Your task to perform on an android device: Open Google Chrome and click the shortcut for Amazon.com Image 0: 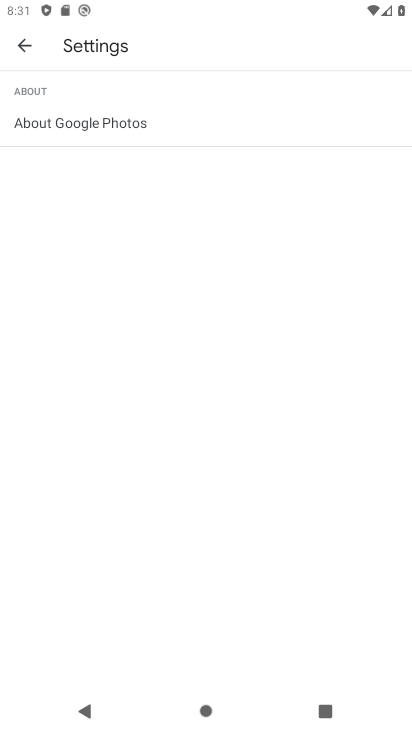
Step 0: press back button
Your task to perform on an android device: Open Google Chrome and click the shortcut for Amazon.com Image 1: 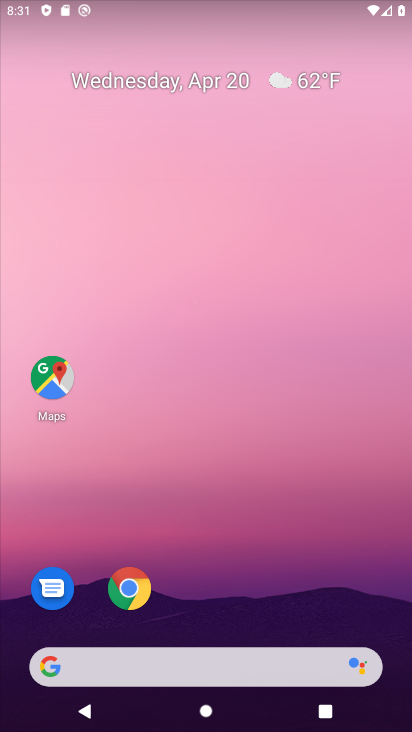
Step 1: click (141, 585)
Your task to perform on an android device: Open Google Chrome and click the shortcut for Amazon.com Image 2: 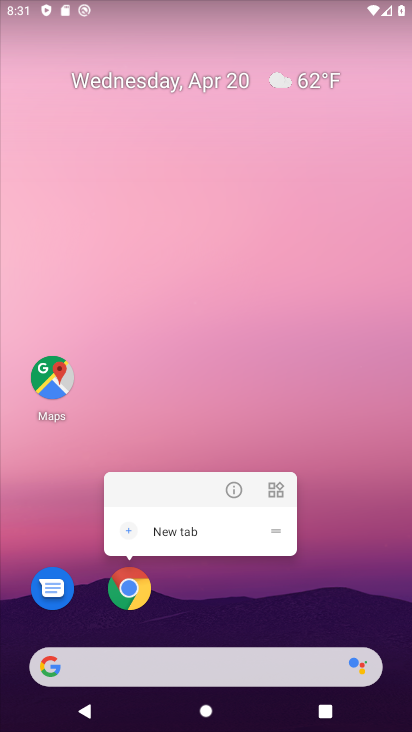
Step 2: click (135, 603)
Your task to perform on an android device: Open Google Chrome and click the shortcut for Amazon.com Image 3: 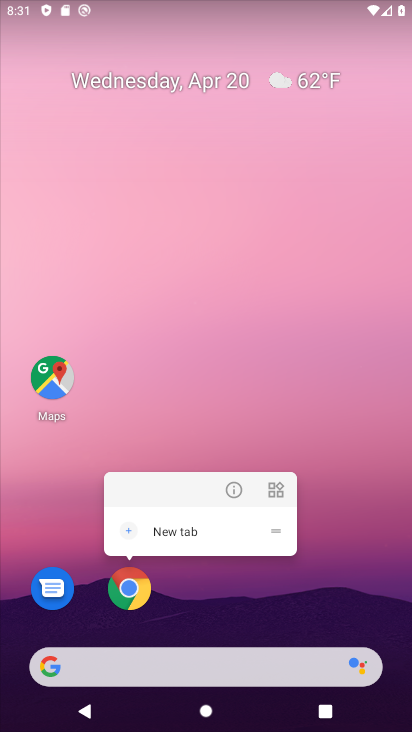
Step 3: click (127, 594)
Your task to perform on an android device: Open Google Chrome and click the shortcut for Amazon.com Image 4: 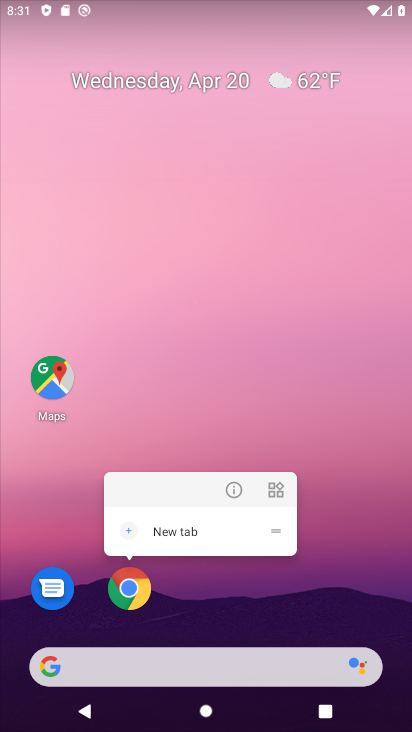
Step 4: drag from (234, 613) to (290, 226)
Your task to perform on an android device: Open Google Chrome and click the shortcut for Amazon.com Image 5: 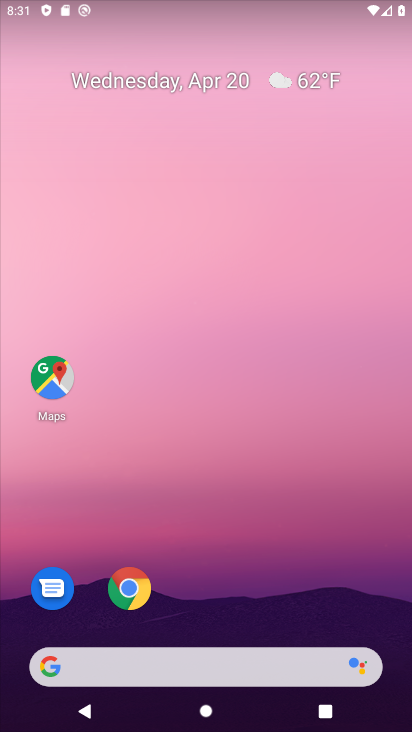
Step 5: drag from (222, 540) to (301, 42)
Your task to perform on an android device: Open Google Chrome and click the shortcut for Amazon.com Image 6: 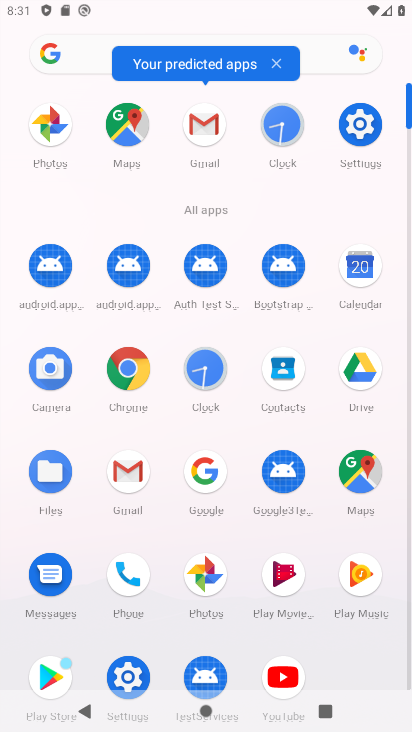
Step 6: click (133, 378)
Your task to perform on an android device: Open Google Chrome and click the shortcut for Amazon.com Image 7: 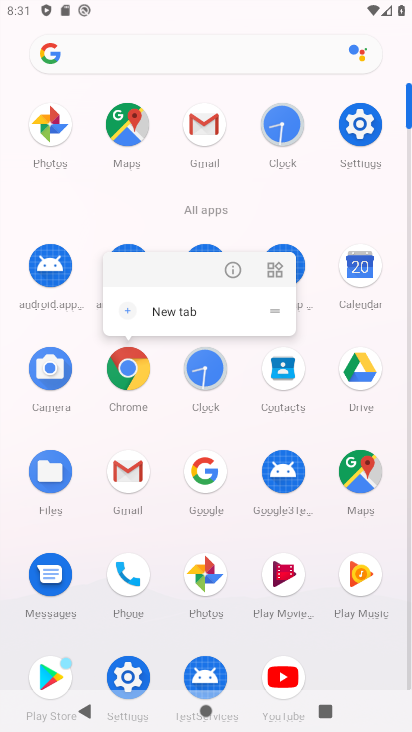
Step 7: click (130, 374)
Your task to perform on an android device: Open Google Chrome and click the shortcut for Amazon.com Image 8: 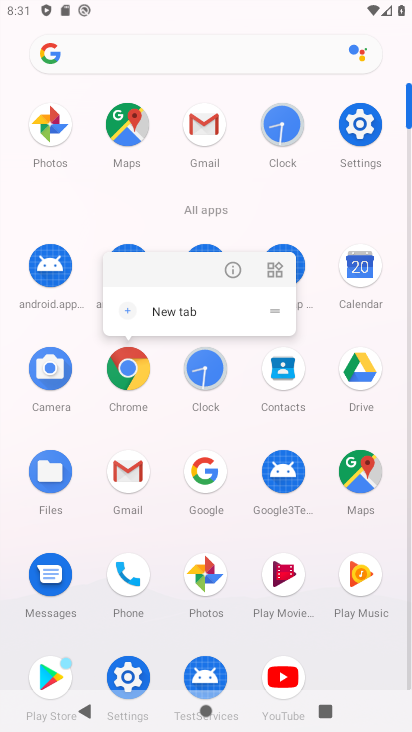
Step 8: click (130, 365)
Your task to perform on an android device: Open Google Chrome and click the shortcut for Amazon.com Image 9: 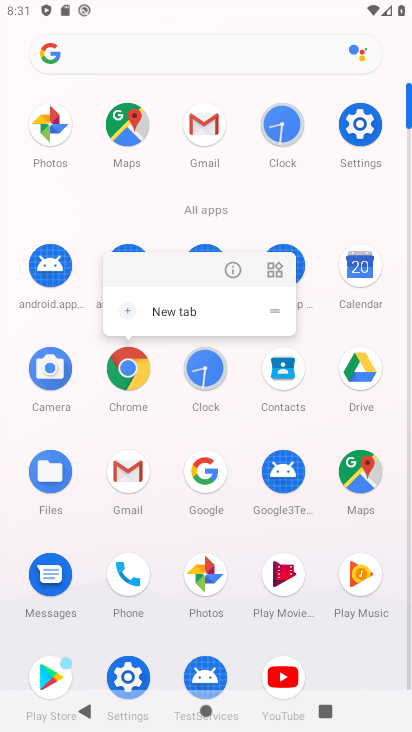
Step 9: click (140, 382)
Your task to perform on an android device: Open Google Chrome and click the shortcut for Amazon.com Image 10: 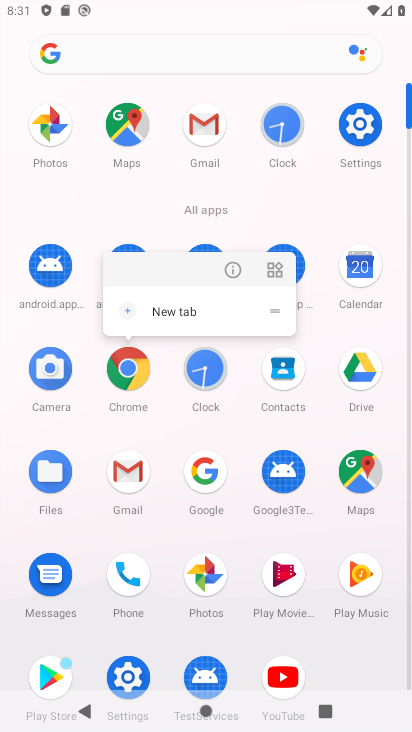
Step 10: click (129, 370)
Your task to perform on an android device: Open Google Chrome and click the shortcut for Amazon.com Image 11: 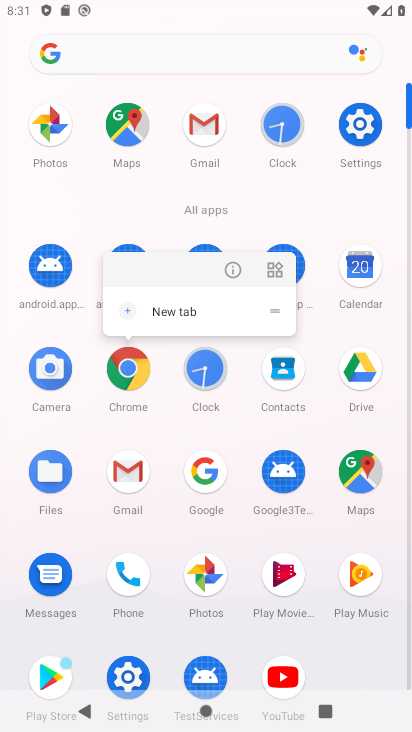
Step 11: click (132, 384)
Your task to perform on an android device: Open Google Chrome and click the shortcut for Amazon.com Image 12: 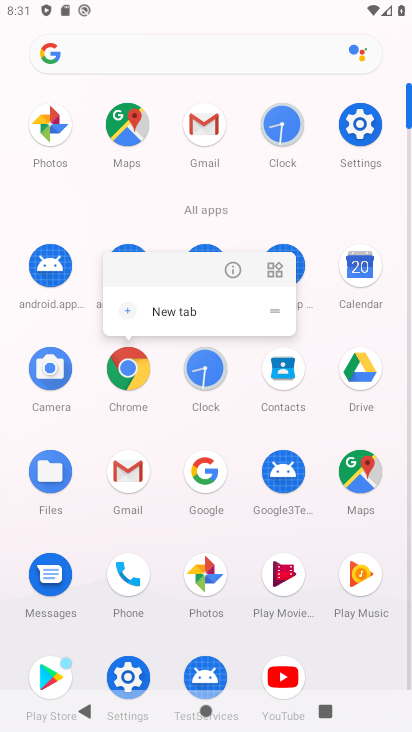
Step 12: click (130, 382)
Your task to perform on an android device: Open Google Chrome and click the shortcut for Amazon.com Image 13: 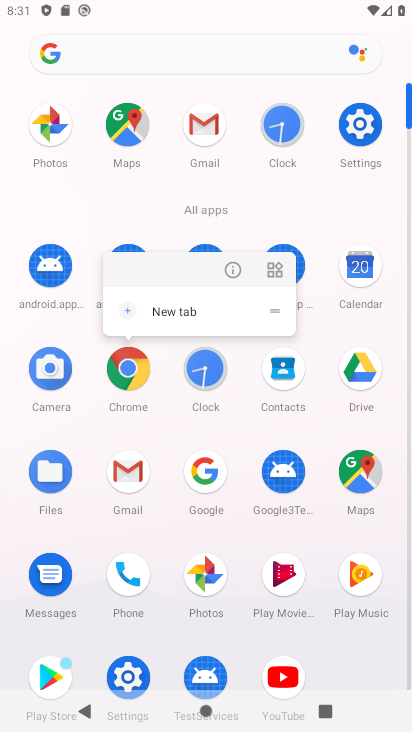
Step 13: click (130, 382)
Your task to perform on an android device: Open Google Chrome and click the shortcut for Amazon.com Image 14: 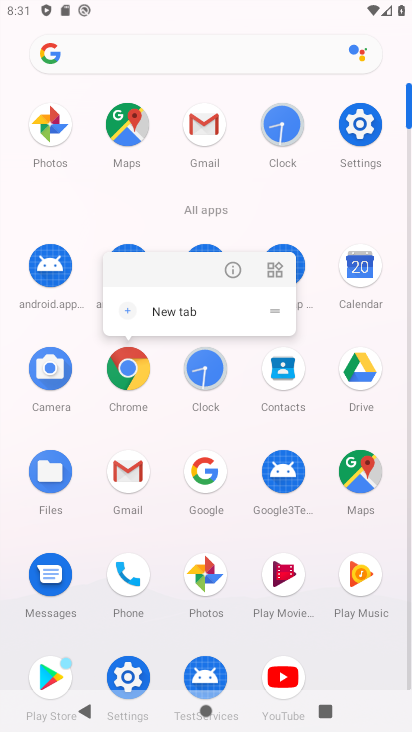
Step 14: click (136, 359)
Your task to perform on an android device: Open Google Chrome and click the shortcut for Amazon.com Image 15: 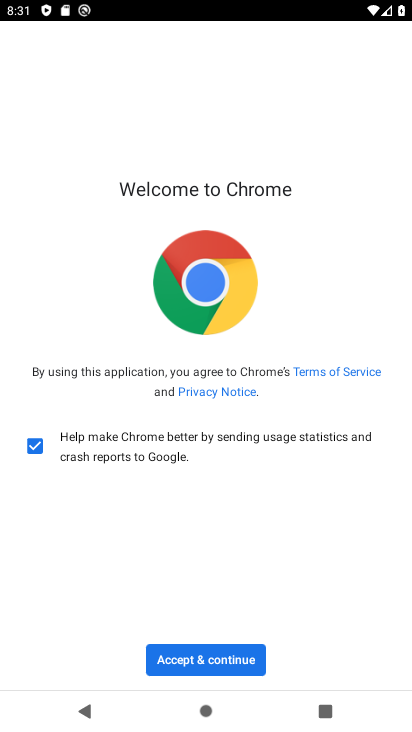
Step 15: click (231, 665)
Your task to perform on an android device: Open Google Chrome and click the shortcut for Amazon.com Image 16: 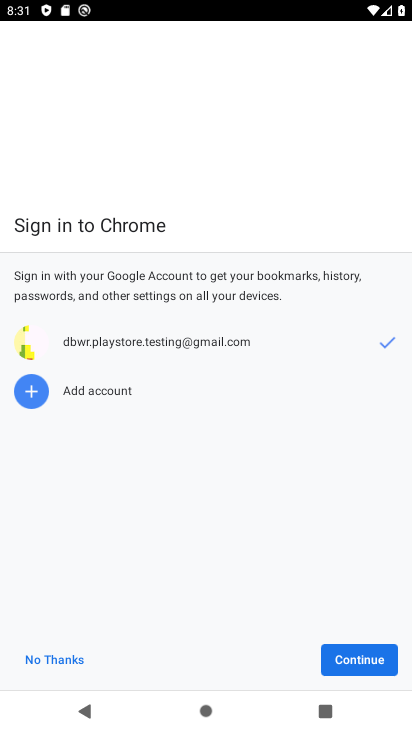
Step 16: click (338, 651)
Your task to perform on an android device: Open Google Chrome and click the shortcut for Amazon.com Image 17: 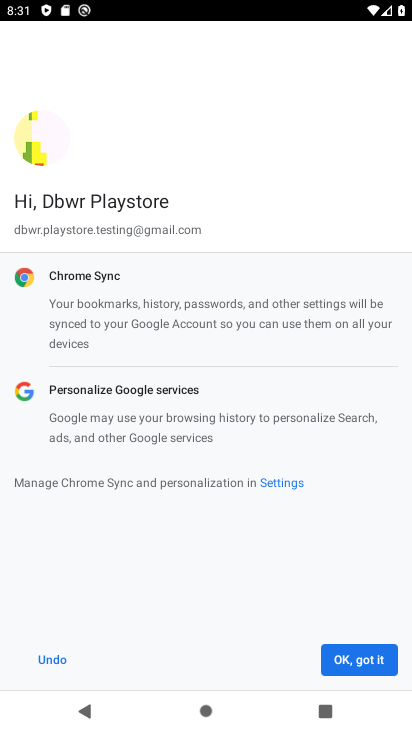
Step 17: click (345, 656)
Your task to perform on an android device: Open Google Chrome and click the shortcut for Amazon.com Image 18: 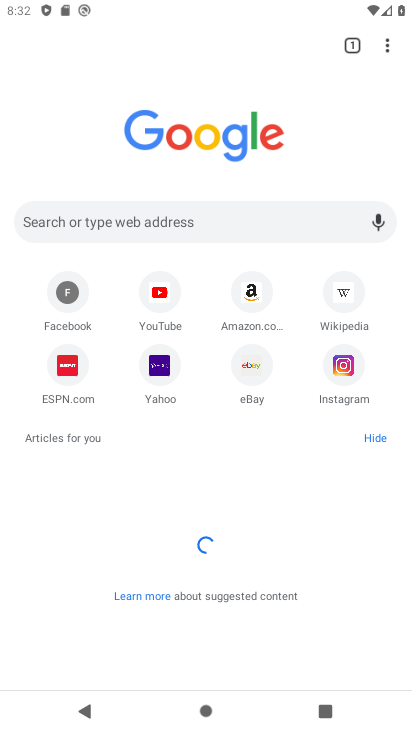
Step 18: click (263, 297)
Your task to perform on an android device: Open Google Chrome and click the shortcut for Amazon.com Image 19: 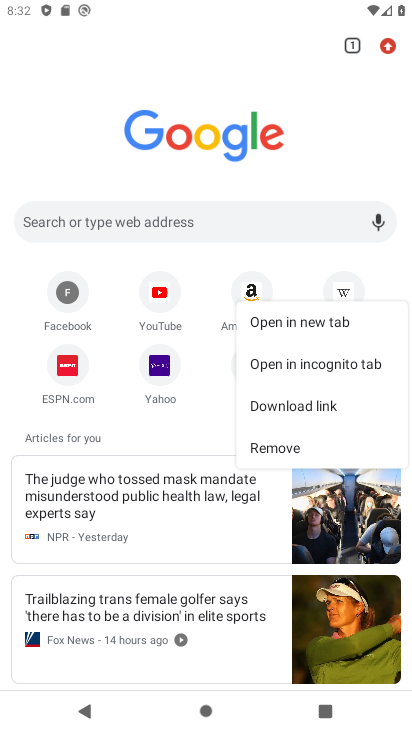
Step 19: click (254, 286)
Your task to perform on an android device: Open Google Chrome and click the shortcut for Amazon.com Image 20: 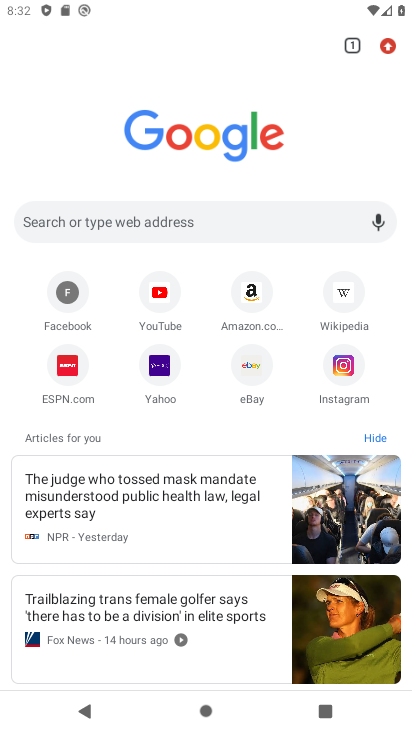
Step 20: click (250, 294)
Your task to perform on an android device: Open Google Chrome and click the shortcut for Amazon.com Image 21: 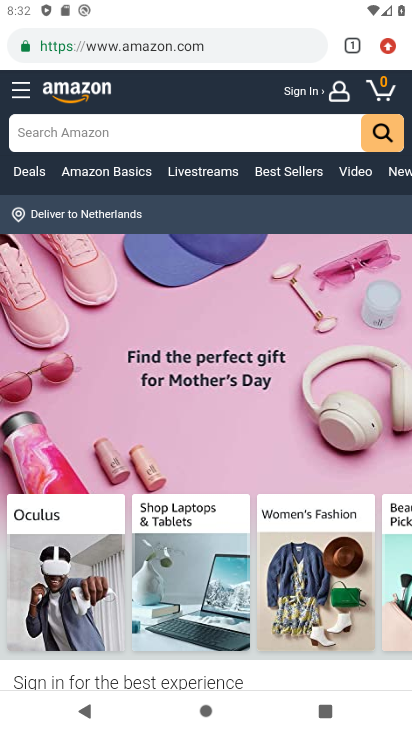
Step 21: task complete